Your task to perform on an android device: delete a single message in the gmail app Image 0: 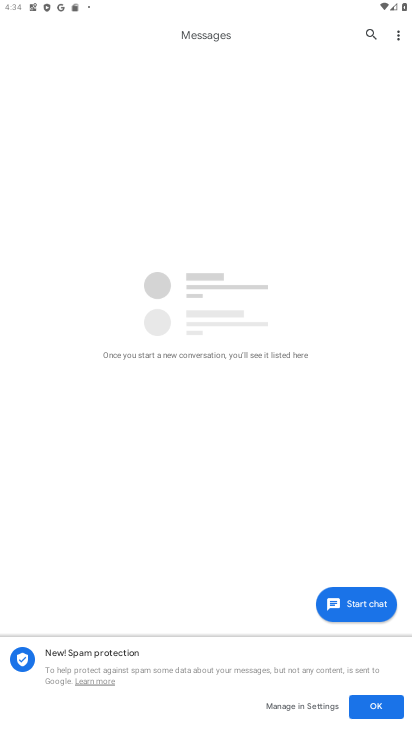
Step 0: press home button
Your task to perform on an android device: delete a single message in the gmail app Image 1: 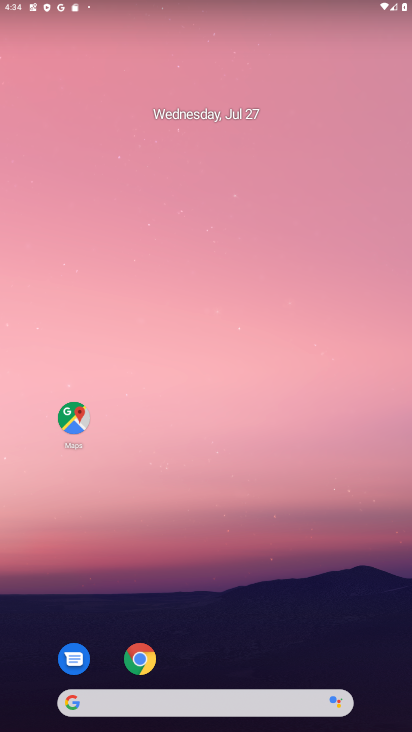
Step 1: drag from (255, 622) to (244, 88)
Your task to perform on an android device: delete a single message in the gmail app Image 2: 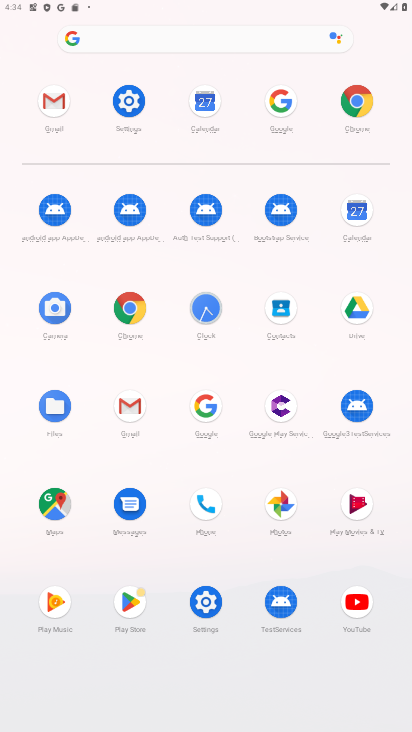
Step 2: click (46, 103)
Your task to perform on an android device: delete a single message in the gmail app Image 3: 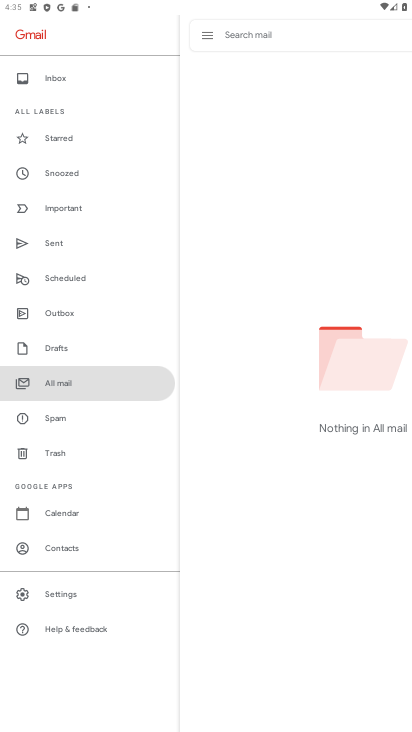
Step 3: task complete